Your task to perform on an android device: Go to Amazon Image 0: 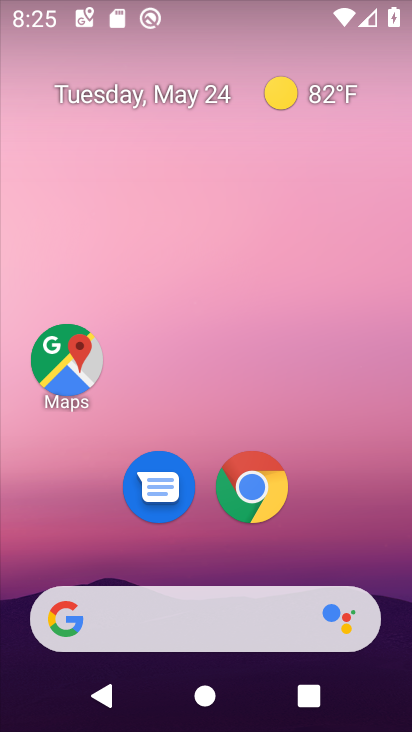
Step 0: drag from (327, 536) to (373, 26)
Your task to perform on an android device: Go to Amazon Image 1: 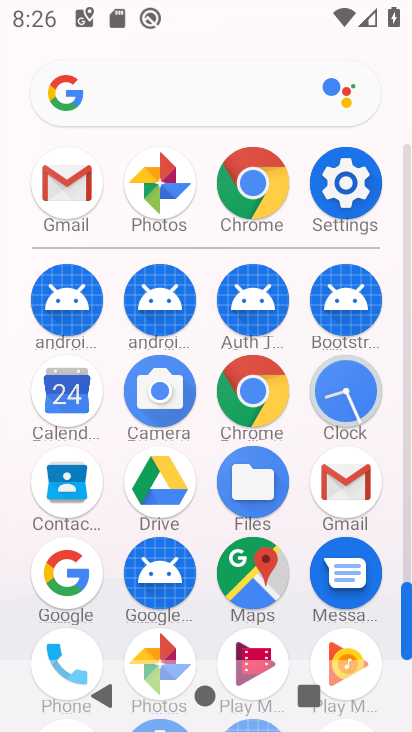
Step 1: drag from (204, 613) to (198, 223)
Your task to perform on an android device: Go to Amazon Image 2: 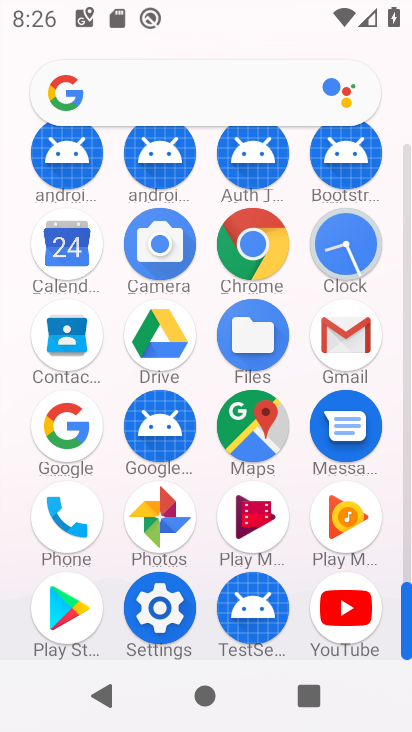
Step 2: drag from (215, 238) to (174, 539)
Your task to perform on an android device: Go to Amazon Image 3: 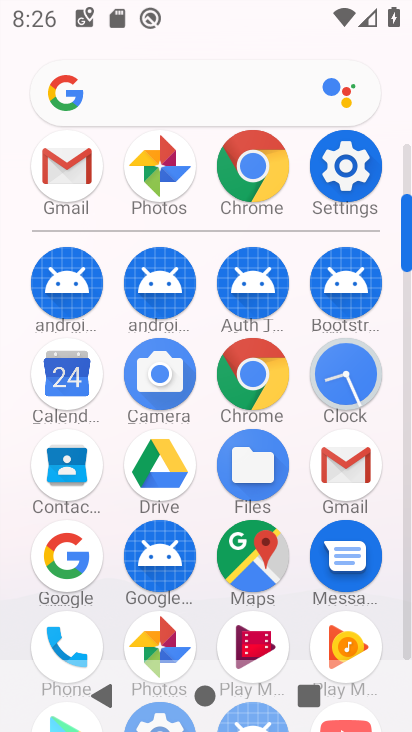
Step 3: click (252, 378)
Your task to perform on an android device: Go to Amazon Image 4: 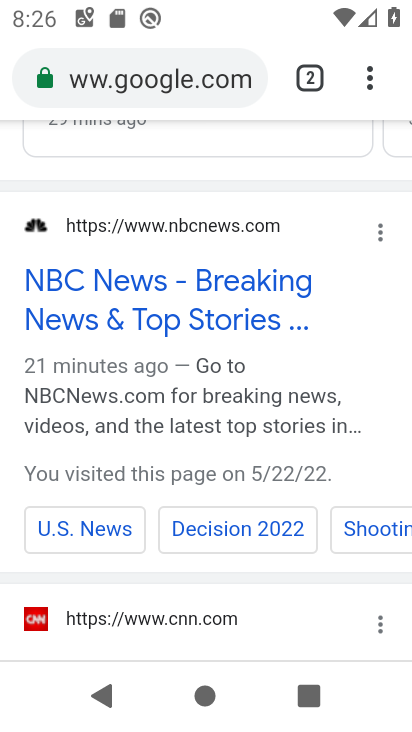
Step 4: click (314, 86)
Your task to perform on an android device: Go to Amazon Image 5: 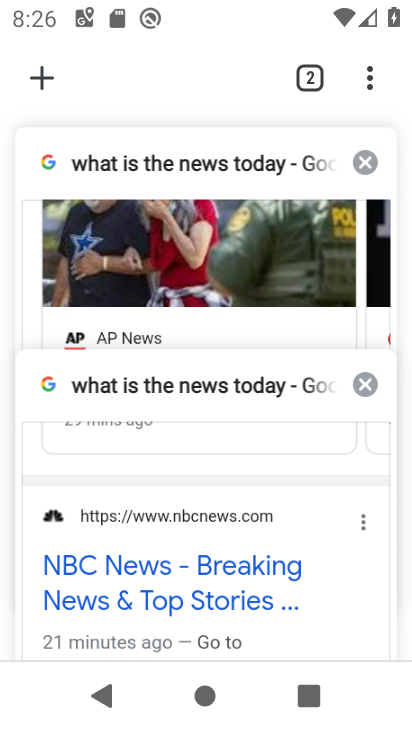
Step 5: click (45, 81)
Your task to perform on an android device: Go to Amazon Image 6: 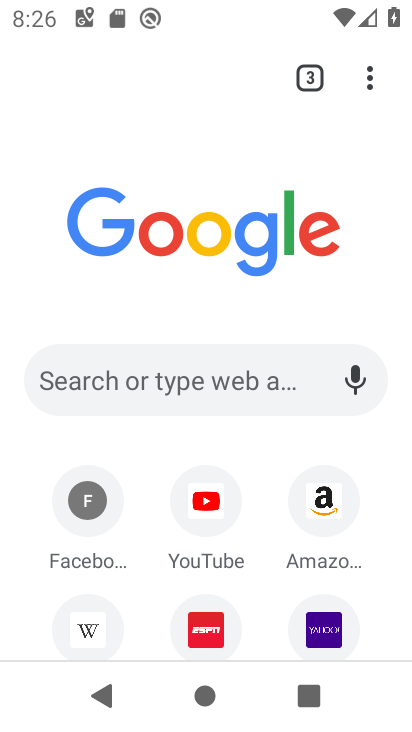
Step 6: click (306, 519)
Your task to perform on an android device: Go to Amazon Image 7: 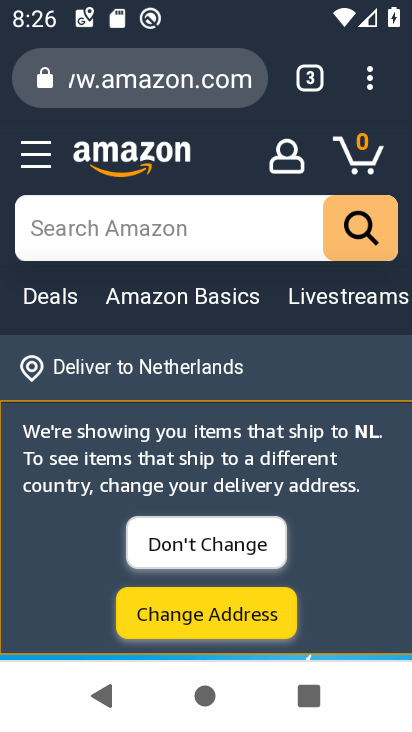
Step 7: task complete